Your task to perform on an android device: delete location history Image 0: 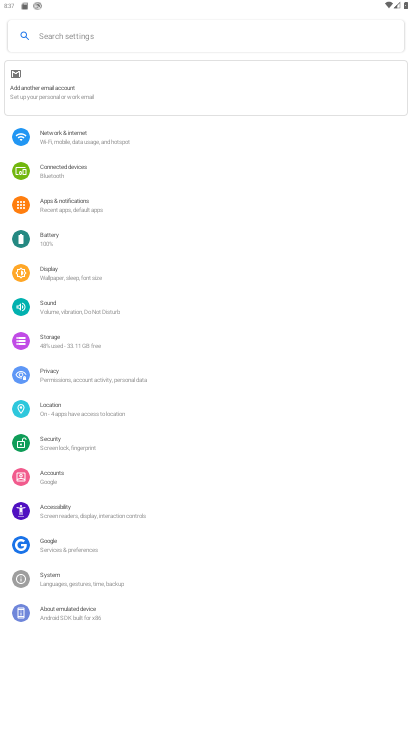
Step 0: press home button
Your task to perform on an android device: delete location history Image 1: 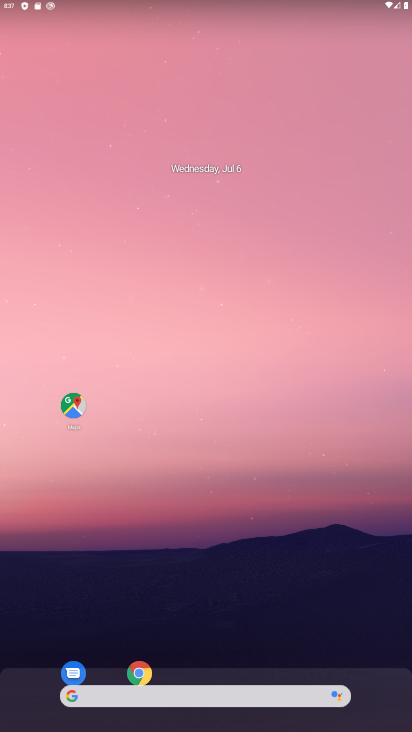
Step 1: drag from (214, 595) to (213, 240)
Your task to perform on an android device: delete location history Image 2: 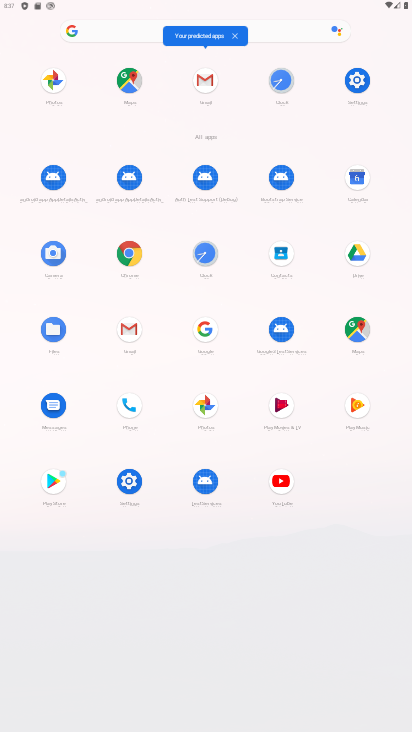
Step 2: click (135, 263)
Your task to perform on an android device: delete location history Image 3: 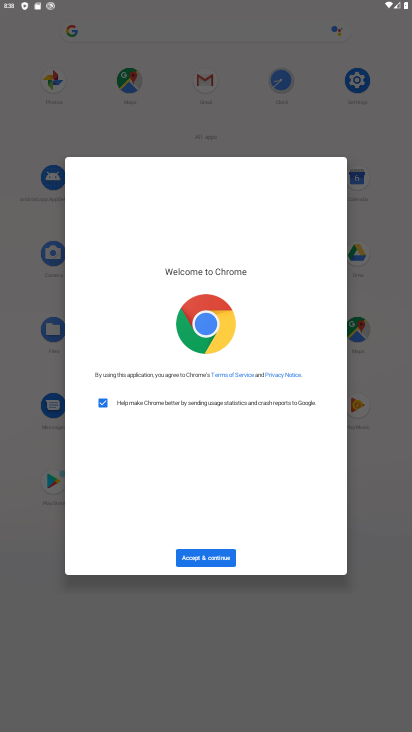
Step 3: click (206, 556)
Your task to perform on an android device: delete location history Image 4: 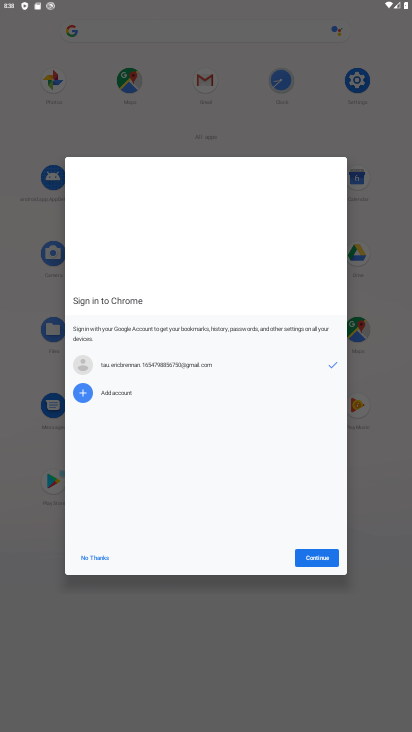
Step 4: click (299, 568)
Your task to perform on an android device: delete location history Image 5: 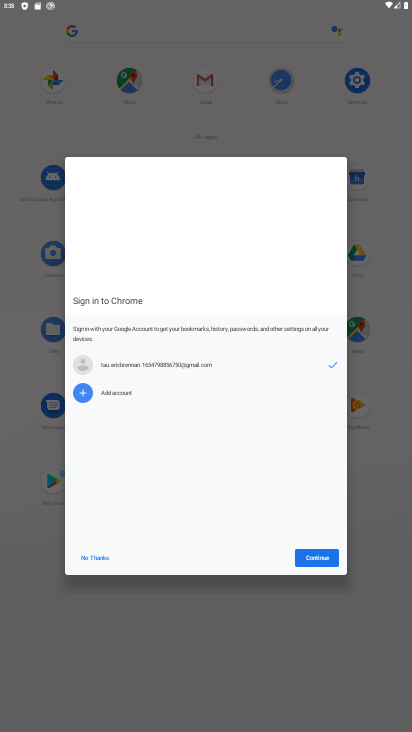
Step 5: click (316, 561)
Your task to perform on an android device: delete location history Image 6: 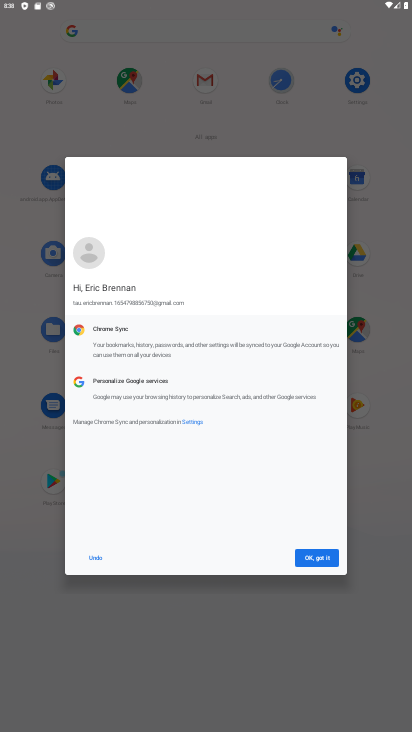
Step 6: click (324, 558)
Your task to perform on an android device: delete location history Image 7: 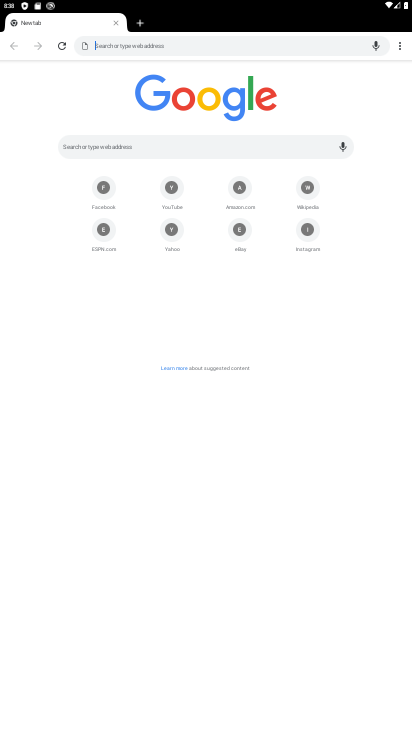
Step 7: click (400, 40)
Your task to perform on an android device: delete location history Image 8: 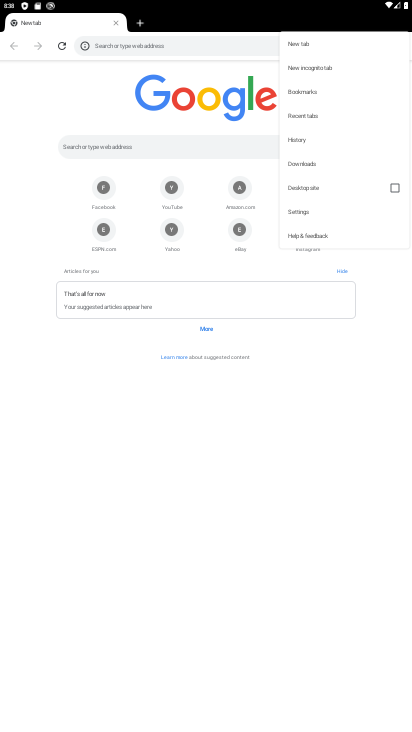
Step 8: click (303, 143)
Your task to perform on an android device: delete location history Image 9: 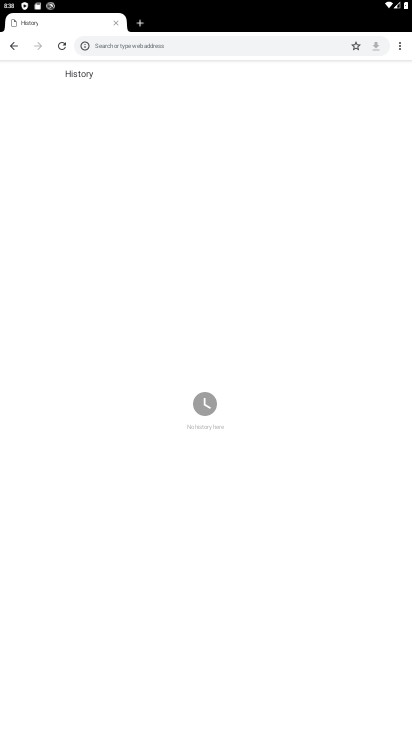
Step 9: task complete